Your task to perform on an android device: change text size in settings app Image 0: 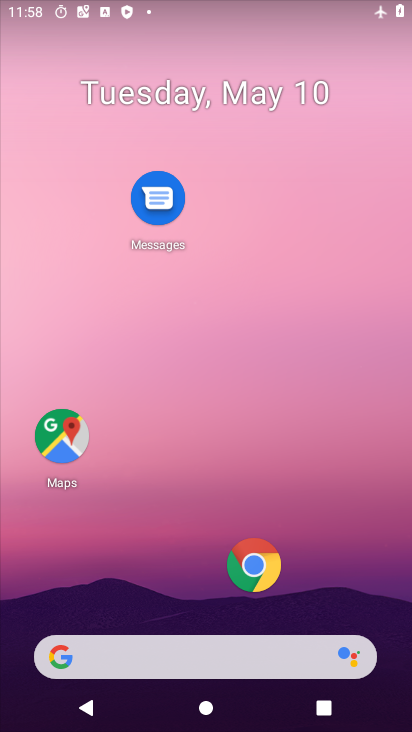
Step 0: drag from (210, 629) to (196, 101)
Your task to perform on an android device: change text size in settings app Image 1: 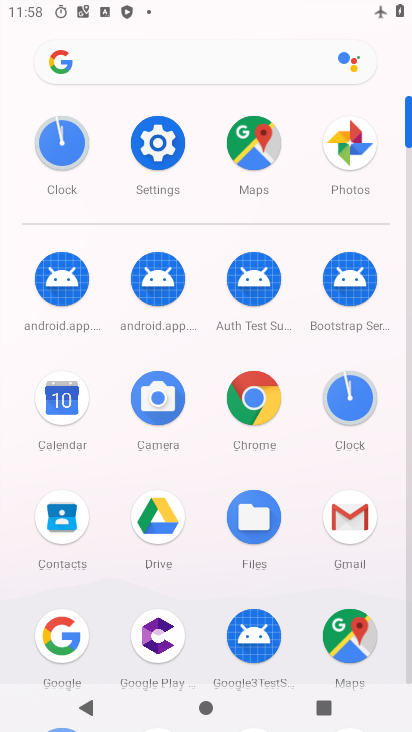
Step 1: click (162, 160)
Your task to perform on an android device: change text size in settings app Image 2: 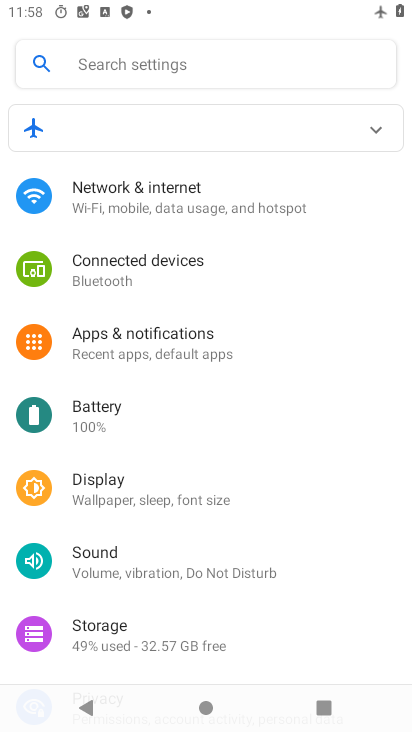
Step 2: drag from (175, 683) to (172, 380)
Your task to perform on an android device: change text size in settings app Image 3: 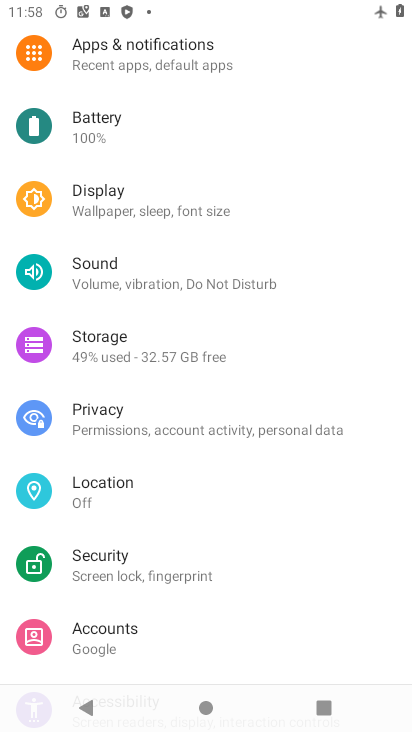
Step 3: click (170, 201)
Your task to perform on an android device: change text size in settings app Image 4: 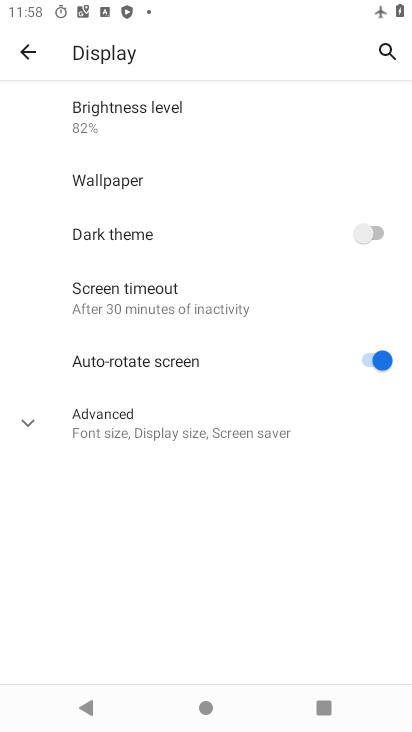
Step 4: click (233, 440)
Your task to perform on an android device: change text size in settings app Image 5: 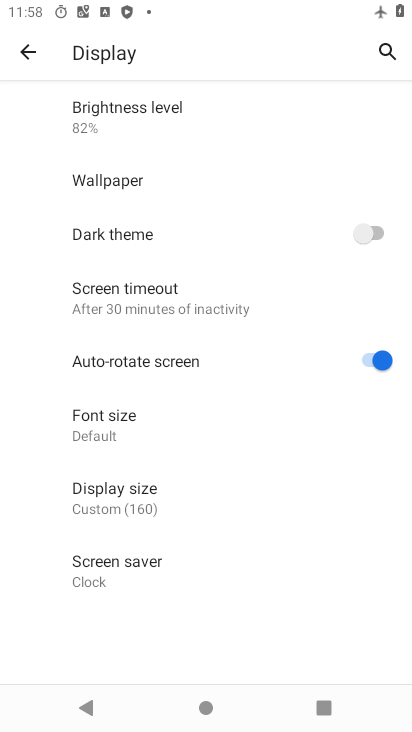
Step 5: click (165, 421)
Your task to perform on an android device: change text size in settings app Image 6: 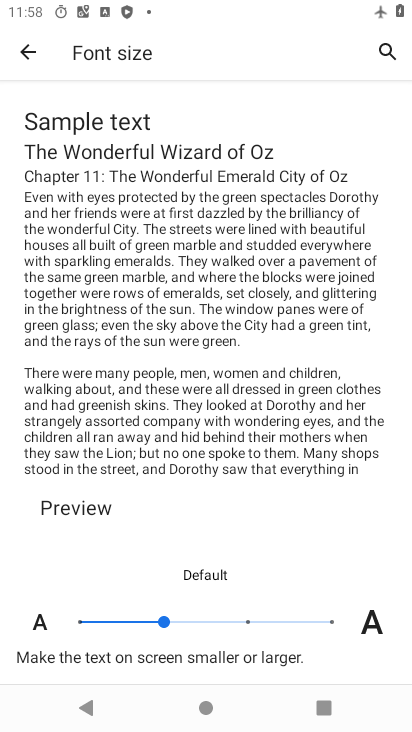
Step 6: click (243, 632)
Your task to perform on an android device: change text size in settings app Image 7: 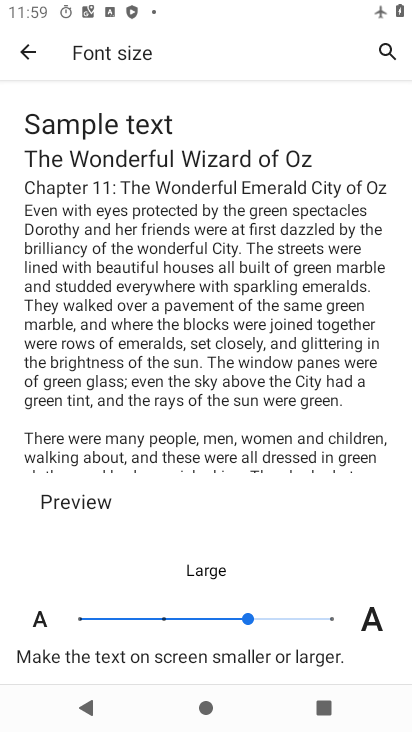
Step 7: task complete